Your task to perform on an android device: create a new album in the google photos Image 0: 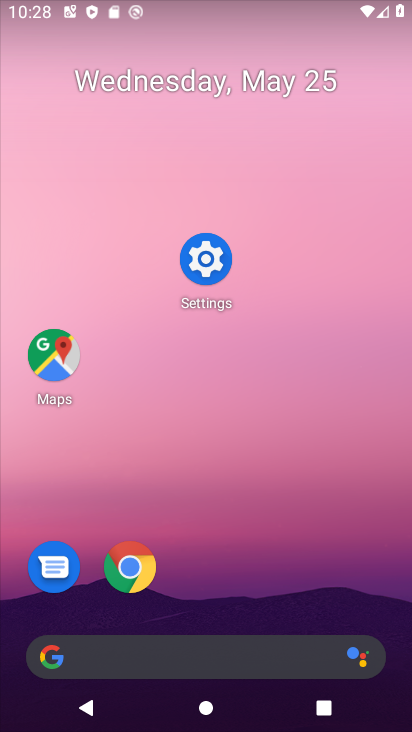
Step 0: drag from (389, 611) to (388, 0)
Your task to perform on an android device: create a new album in the google photos Image 1: 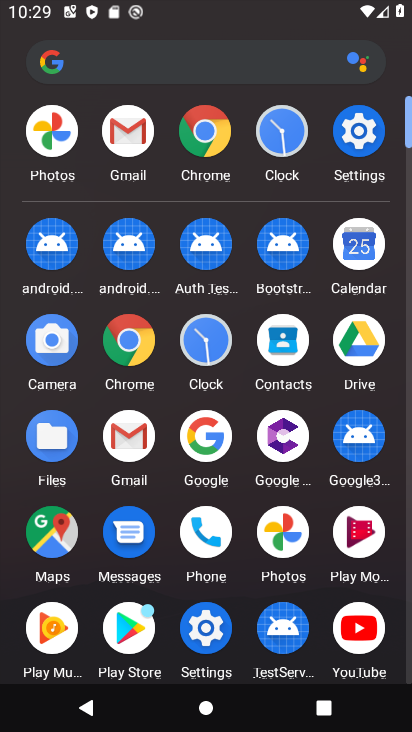
Step 1: click (283, 540)
Your task to perform on an android device: create a new album in the google photos Image 2: 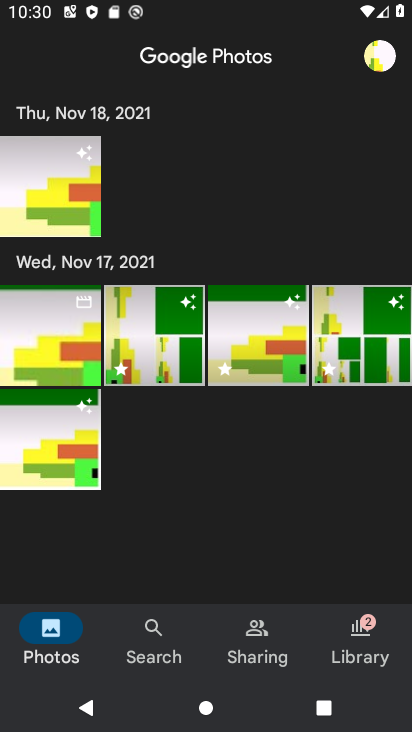
Step 2: task complete